Your task to perform on an android device: turn on javascript in the chrome app Image 0: 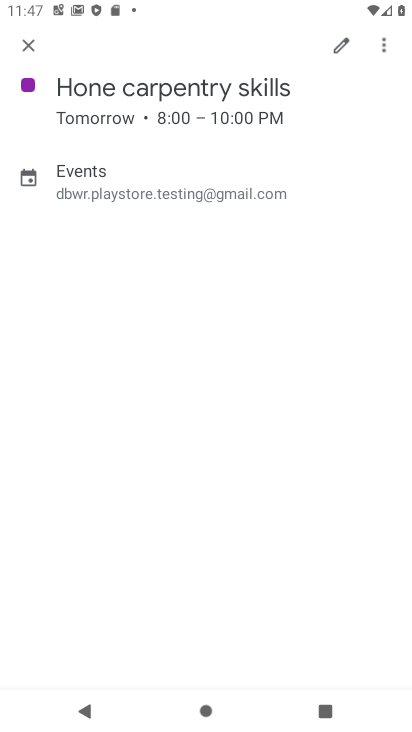
Step 0: press home button
Your task to perform on an android device: turn on javascript in the chrome app Image 1: 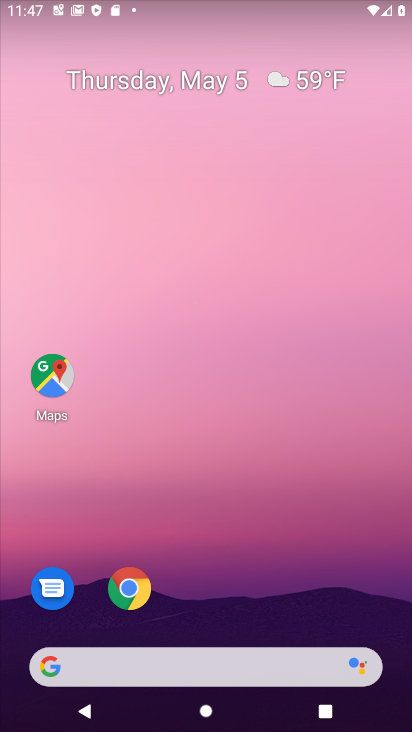
Step 1: drag from (179, 652) to (321, 39)
Your task to perform on an android device: turn on javascript in the chrome app Image 2: 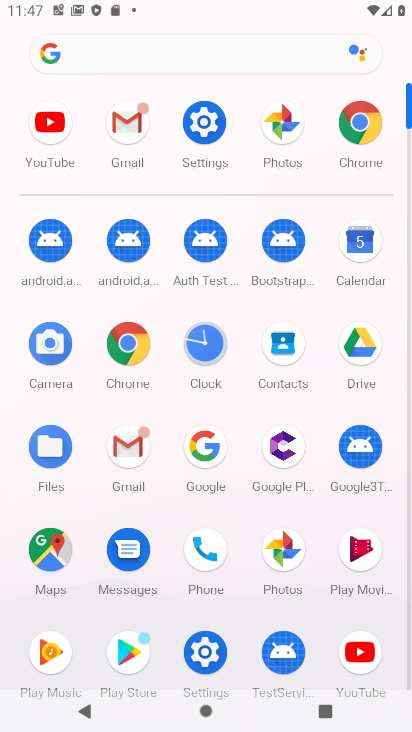
Step 2: click (365, 134)
Your task to perform on an android device: turn on javascript in the chrome app Image 3: 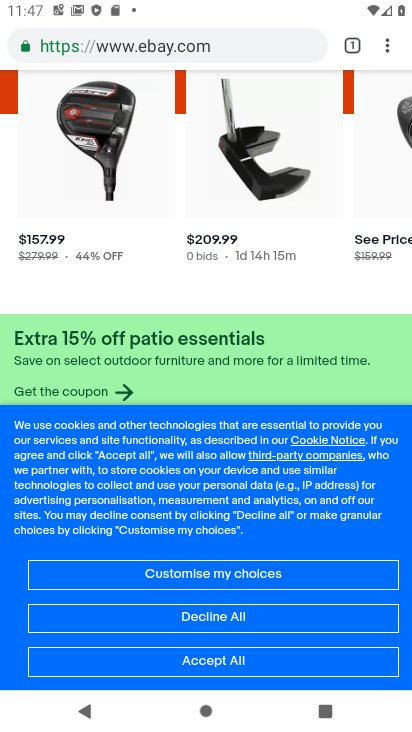
Step 3: drag from (388, 42) to (259, 555)
Your task to perform on an android device: turn on javascript in the chrome app Image 4: 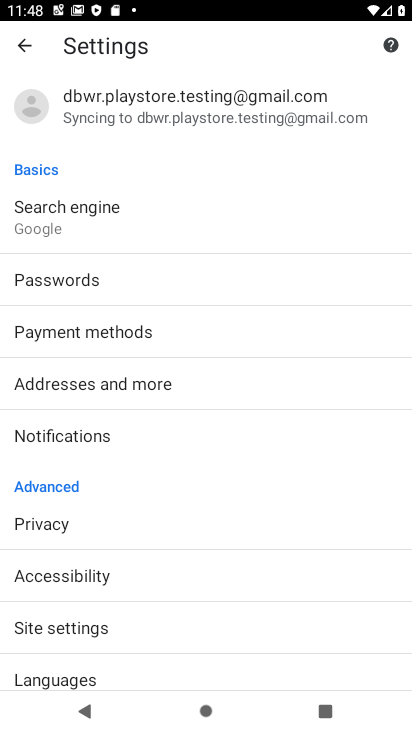
Step 4: click (88, 631)
Your task to perform on an android device: turn on javascript in the chrome app Image 5: 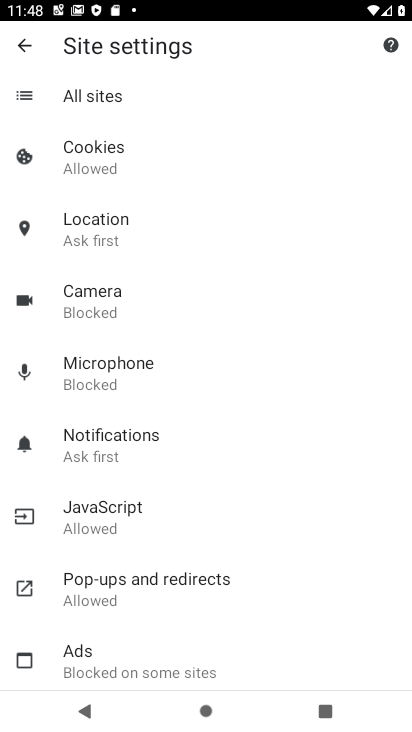
Step 5: click (107, 515)
Your task to perform on an android device: turn on javascript in the chrome app Image 6: 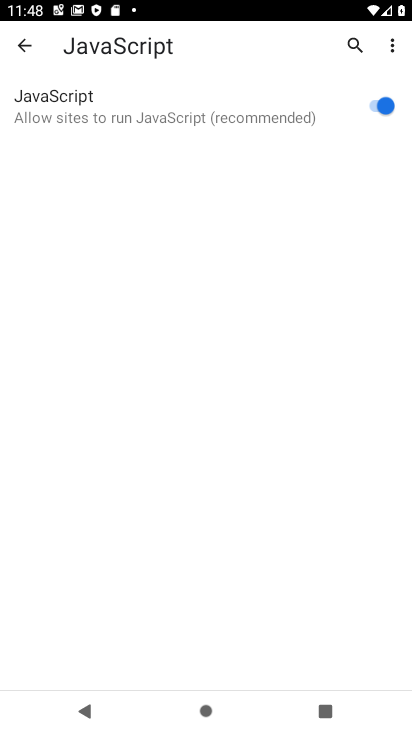
Step 6: task complete